Your task to perform on an android device: open app "Facebook Lite" (install if not already installed), go to login, and select forgot password Image 0: 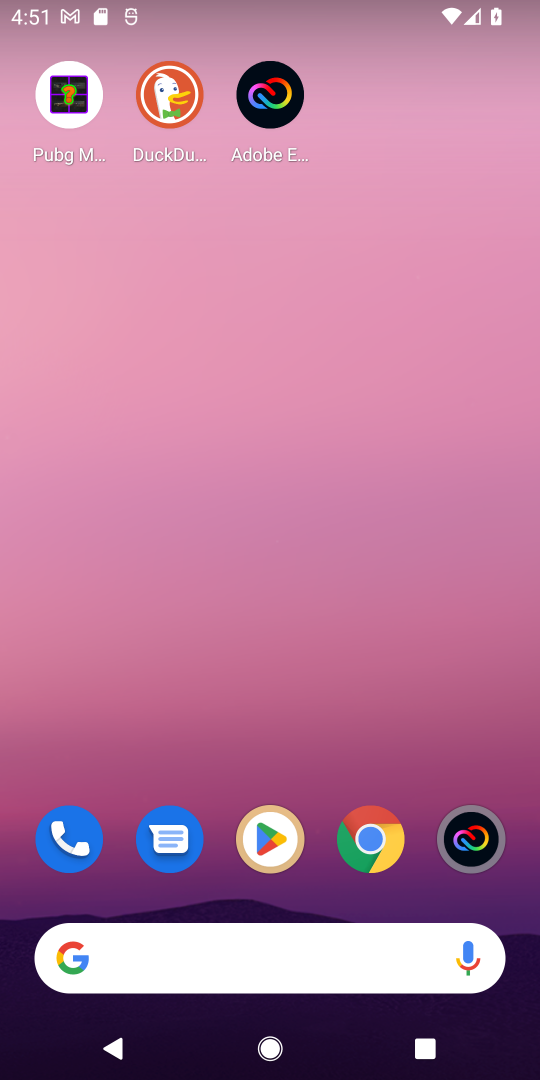
Step 0: press home button
Your task to perform on an android device: open app "Facebook Lite" (install if not already installed), go to login, and select forgot password Image 1: 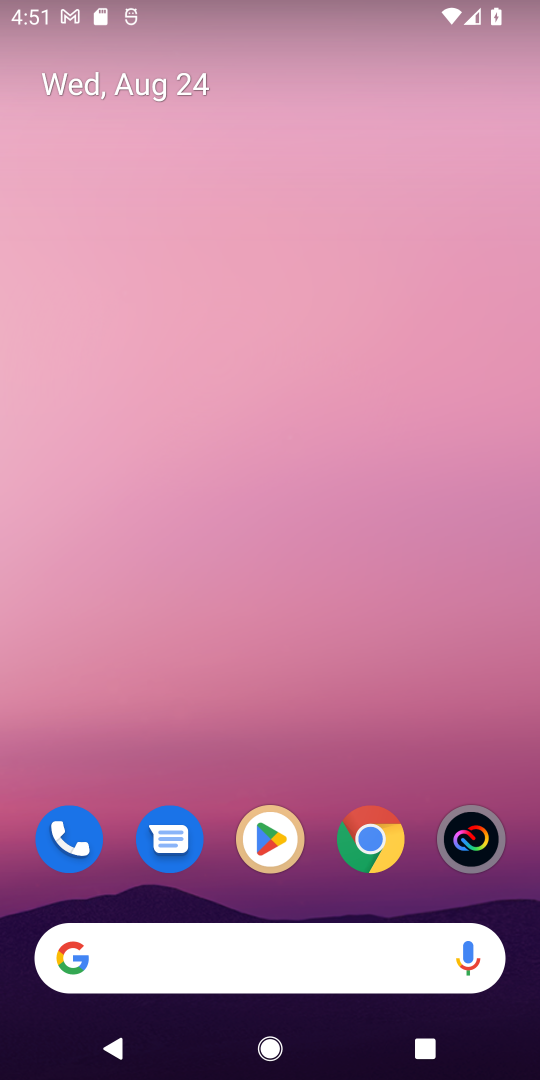
Step 1: click (275, 840)
Your task to perform on an android device: open app "Facebook Lite" (install if not already installed), go to login, and select forgot password Image 2: 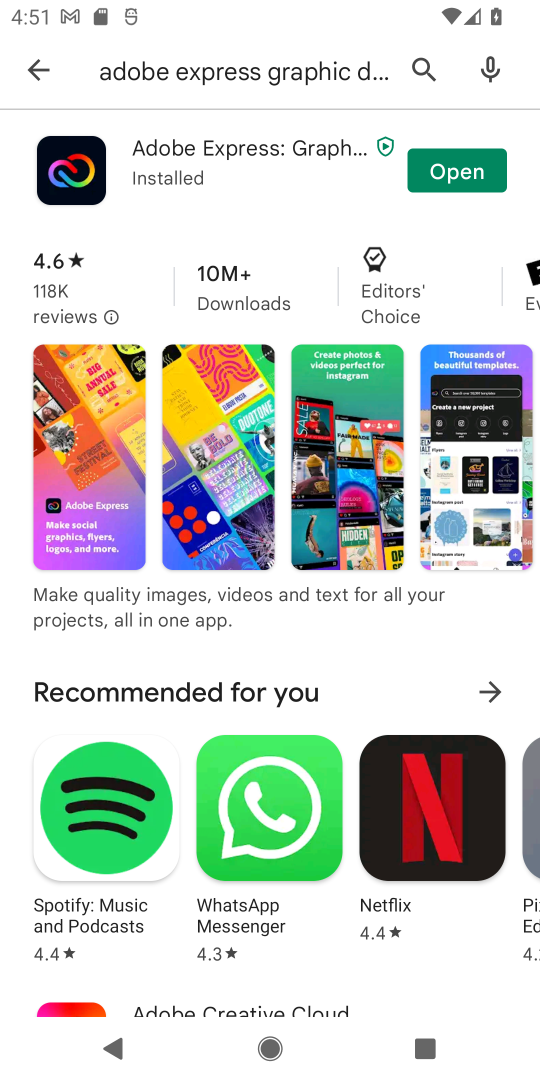
Step 2: click (415, 73)
Your task to perform on an android device: open app "Facebook Lite" (install if not already installed), go to login, and select forgot password Image 3: 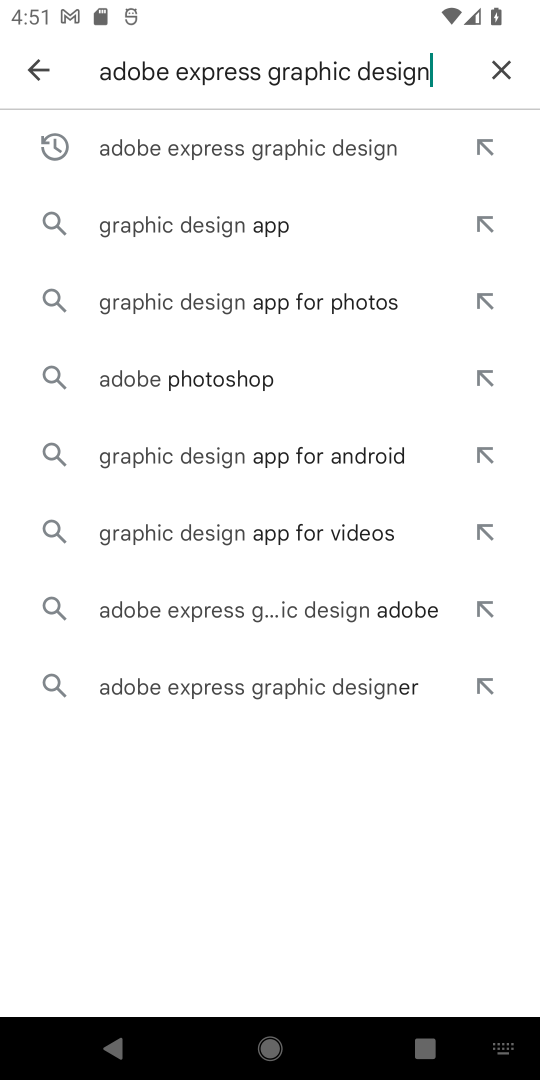
Step 3: click (515, 73)
Your task to perform on an android device: open app "Facebook Lite" (install if not already installed), go to login, and select forgot password Image 4: 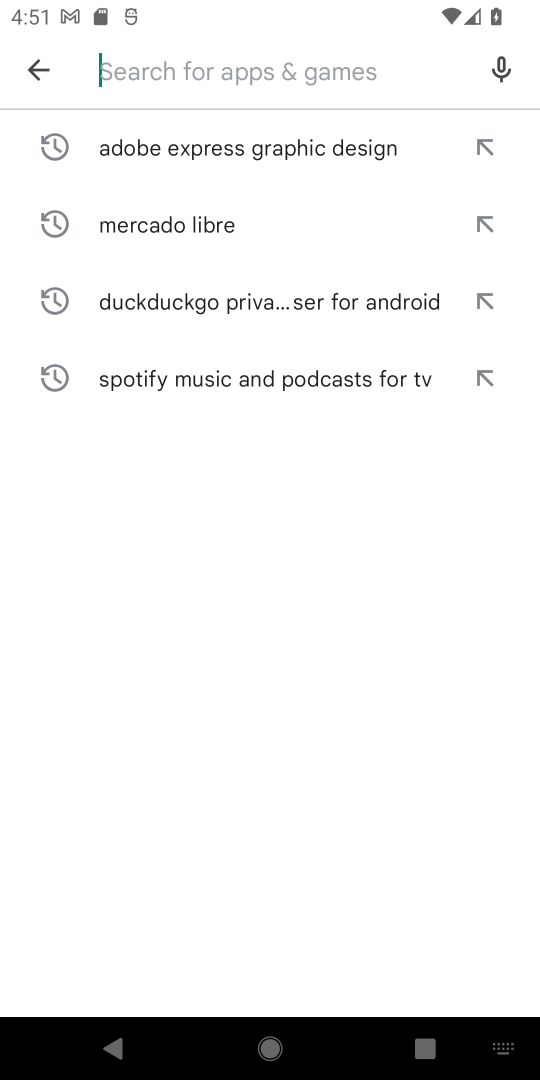
Step 4: type "Facebook Lite"
Your task to perform on an android device: open app "Facebook Lite" (install if not already installed), go to login, and select forgot password Image 5: 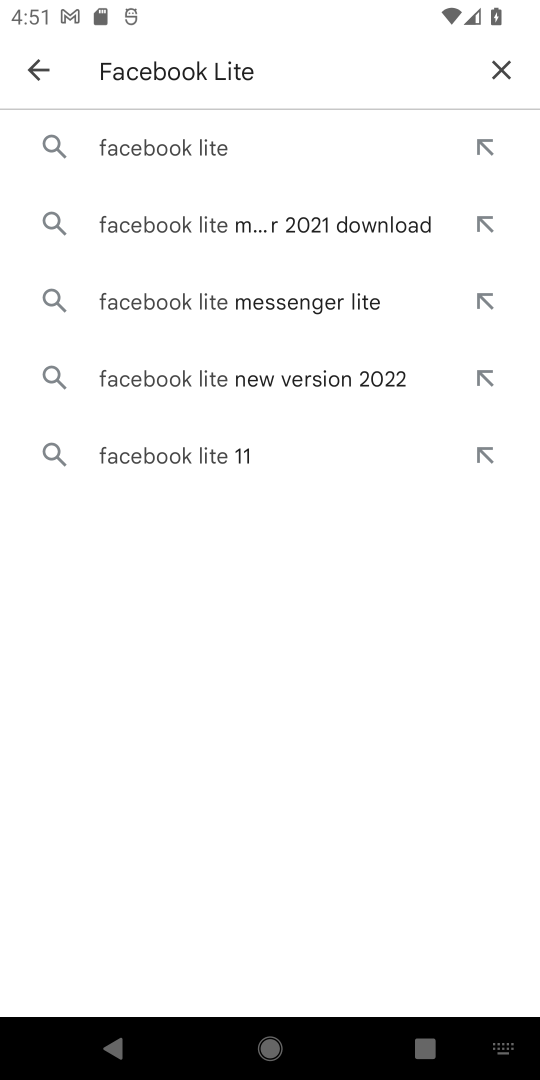
Step 5: click (210, 142)
Your task to perform on an android device: open app "Facebook Lite" (install if not already installed), go to login, and select forgot password Image 6: 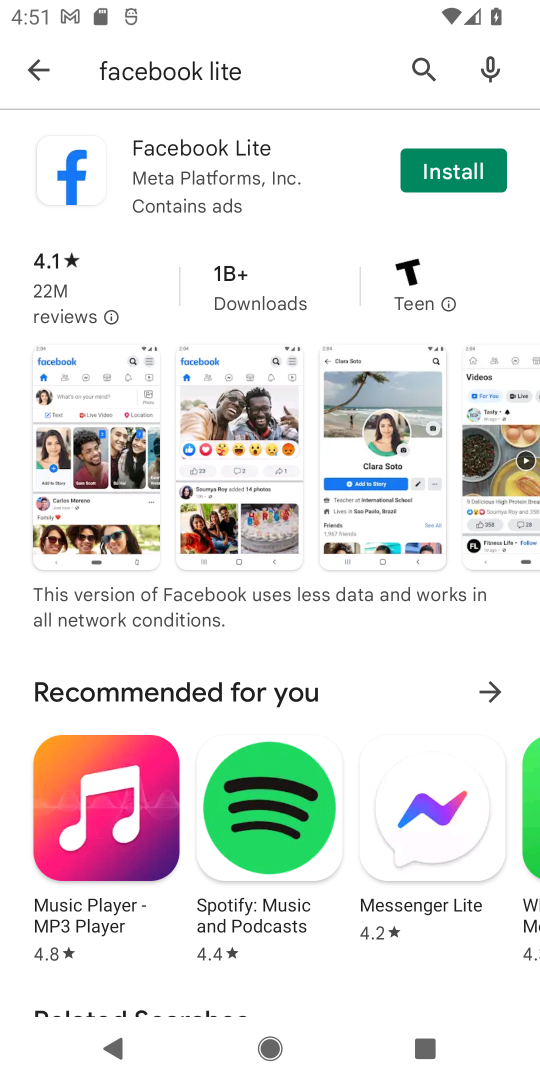
Step 6: click (479, 162)
Your task to perform on an android device: open app "Facebook Lite" (install if not already installed), go to login, and select forgot password Image 7: 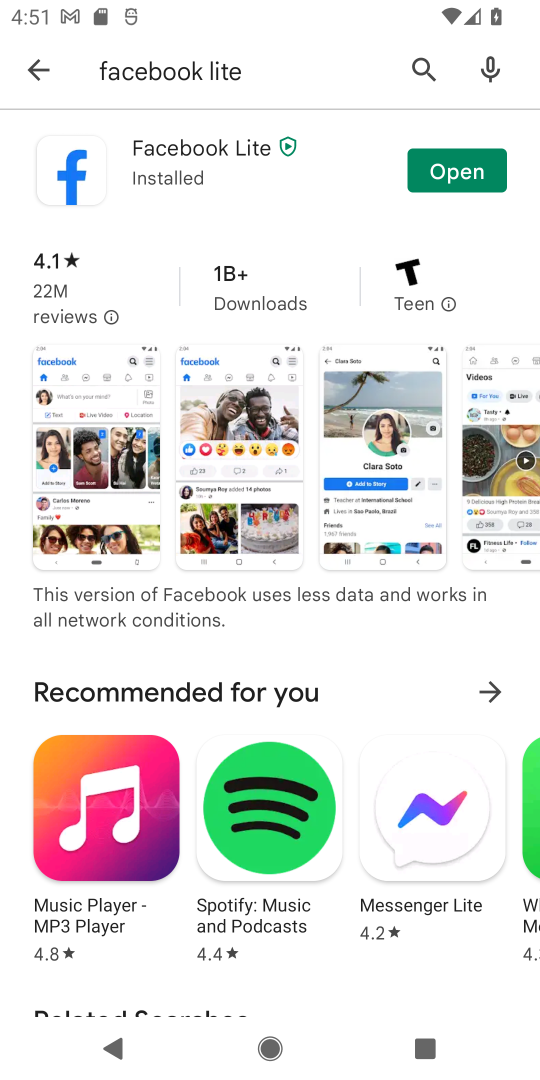
Step 7: click (460, 179)
Your task to perform on an android device: open app "Facebook Lite" (install if not already installed), go to login, and select forgot password Image 8: 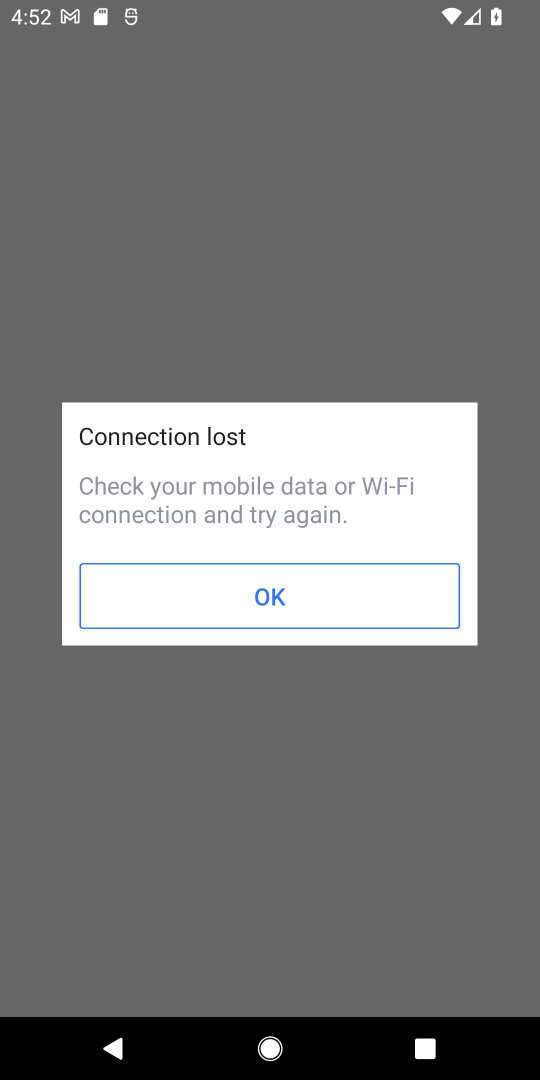
Step 8: task complete